Your task to perform on an android device: Open the web browser Image 0: 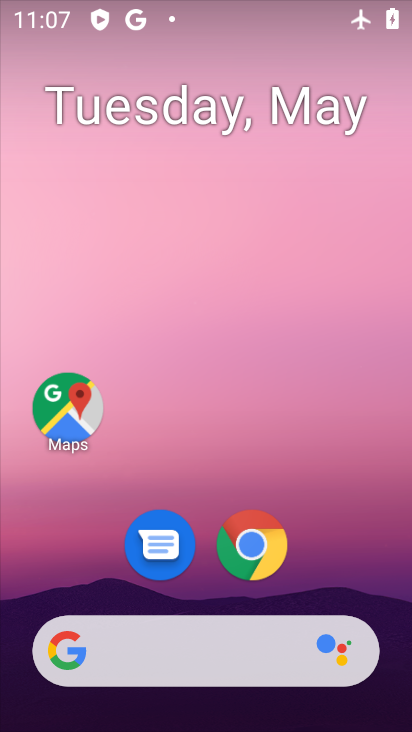
Step 0: drag from (372, 543) to (381, 139)
Your task to perform on an android device: Open the web browser Image 1: 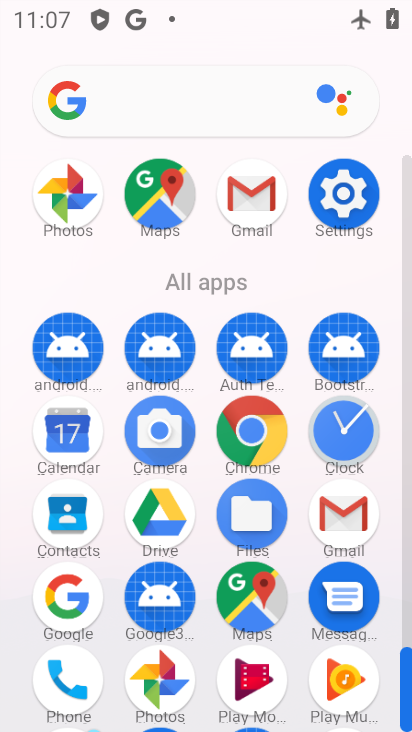
Step 1: click (241, 430)
Your task to perform on an android device: Open the web browser Image 2: 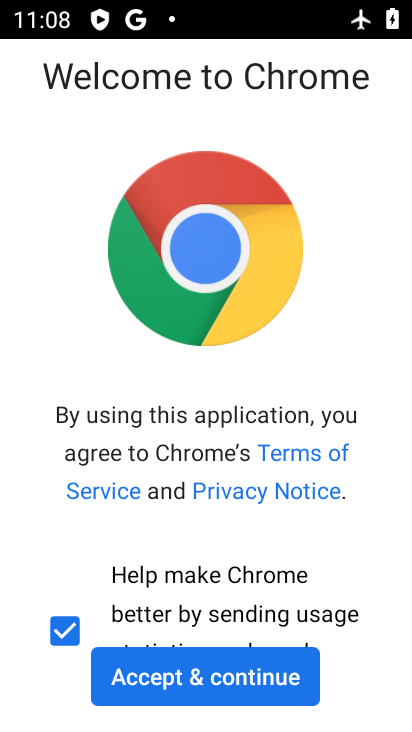
Step 2: click (217, 683)
Your task to perform on an android device: Open the web browser Image 3: 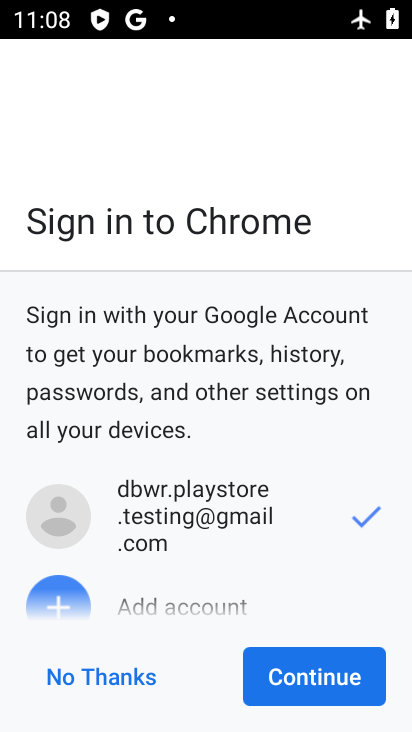
Step 3: click (335, 681)
Your task to perform on an android device: Open the web browser Image 4: 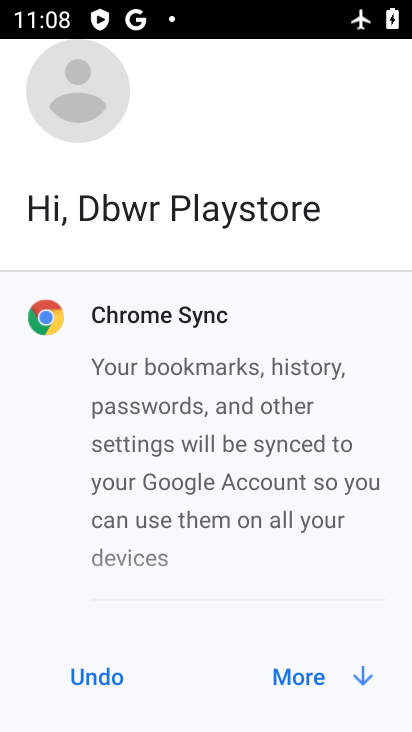
Step 4: click (334, 681)
Your task to perform on an android device: Open the web browser Image 5: 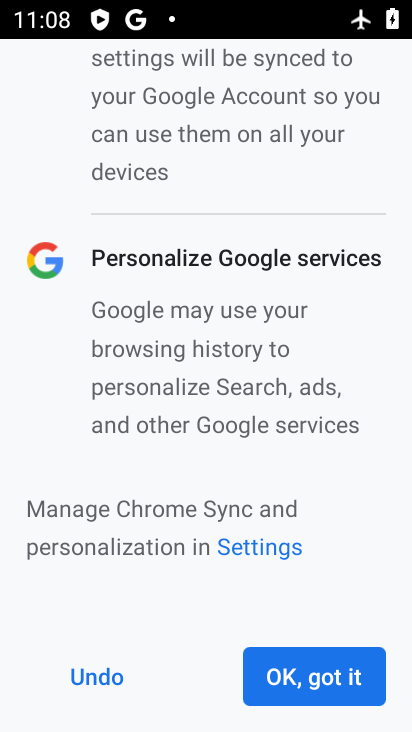
Step 5: click (328, 675)
Your task to perform on an android device: Open the web browser Image 6: 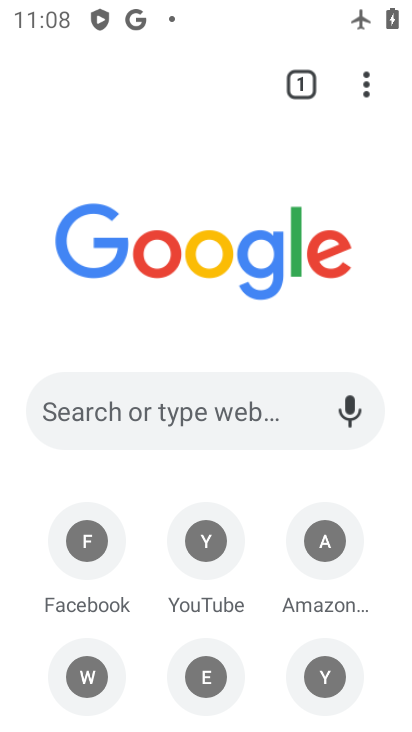
Step 6: task complete